Your task to perform on an android device: open app "Microsoft Excel" (install if not already installed) and go to login screen Image 0: 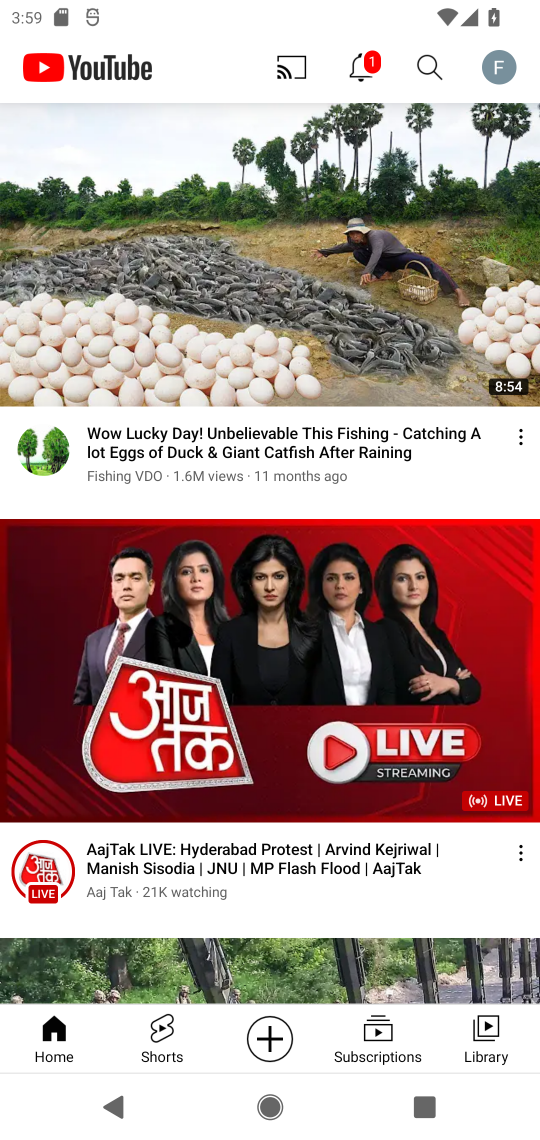
Step 0: press home button
Your task to perform on an android device: open app "Microsoft Excel" (install if not already installed) and go to login screen Image 1: 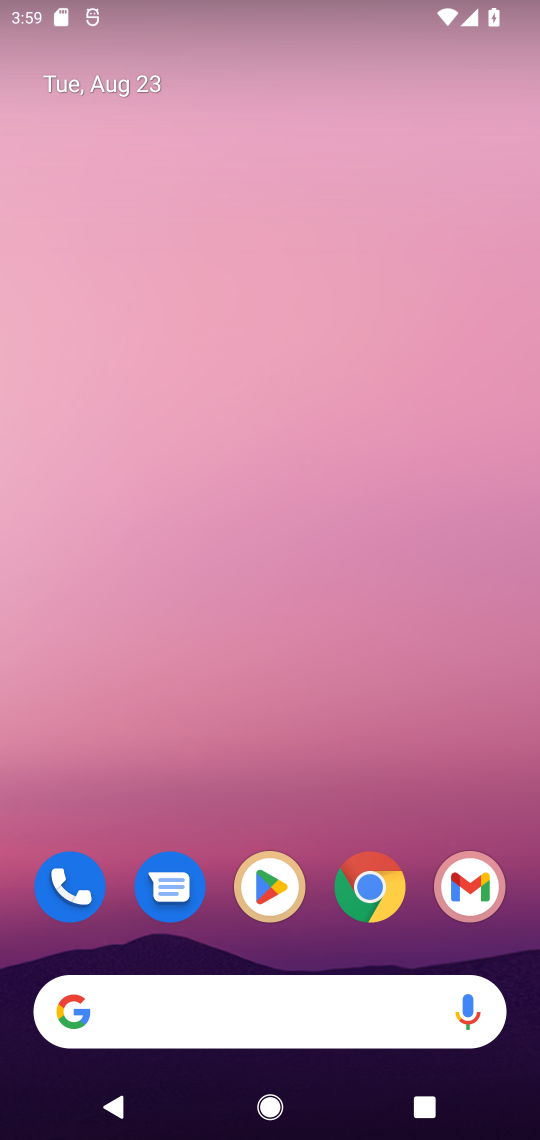
Step 1: click (268, 895)
Your task to perform on an android device: open app "Microsoft Excel" (install if not already installed) and go to login screen Image 2: 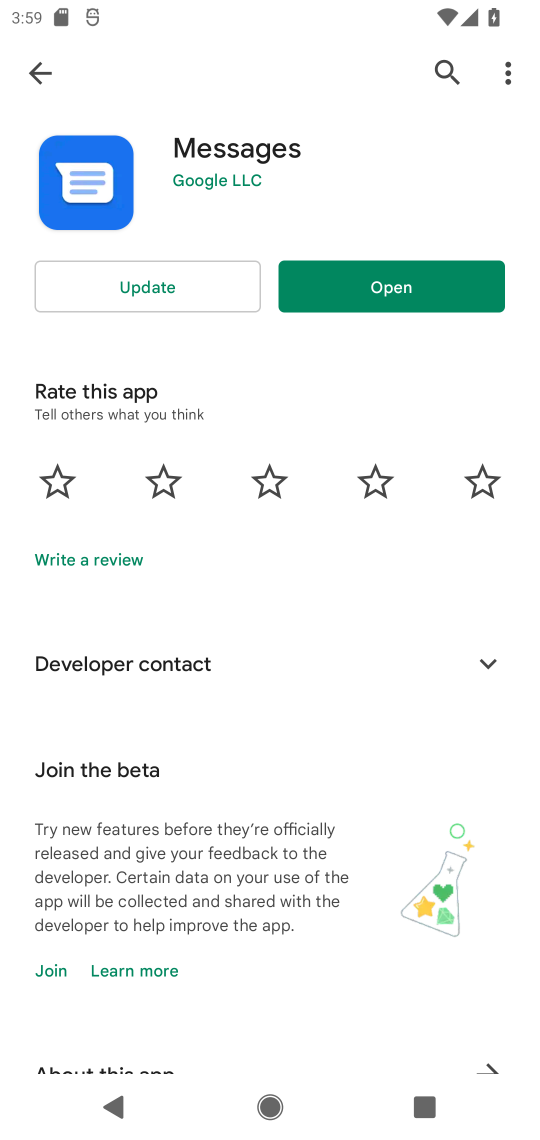
Step 2: click (32, 62)
Your task to perform on an android device: open app "Microsoft Excel" (install if not already installed) and go to login screen Image 3: 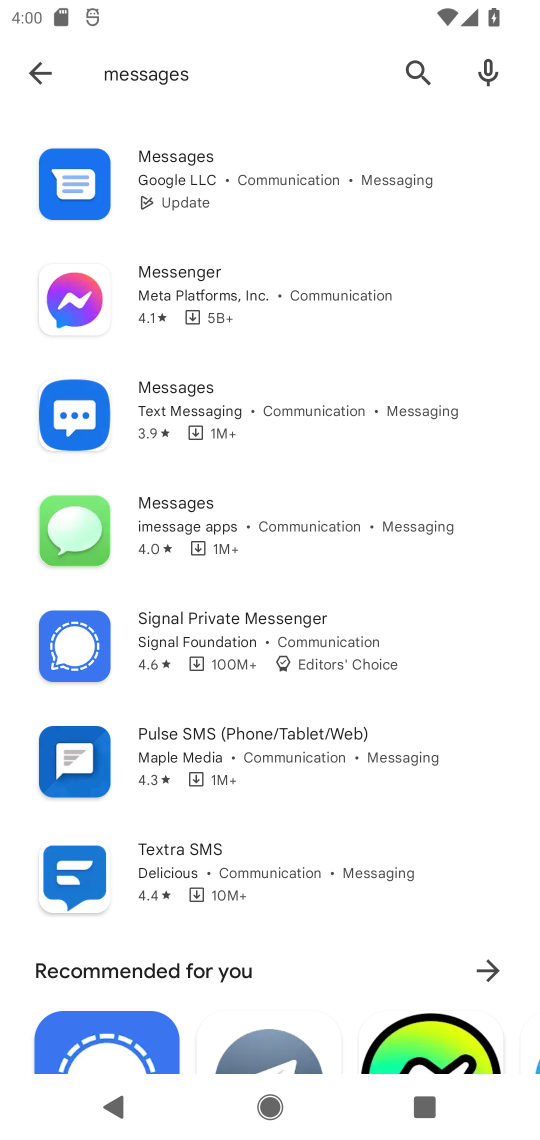
Step 3: click (40, 71)
Your task to perform on an android device: open app "Microsoft Excel" (install if not already installed) and go to login screen Image 4: 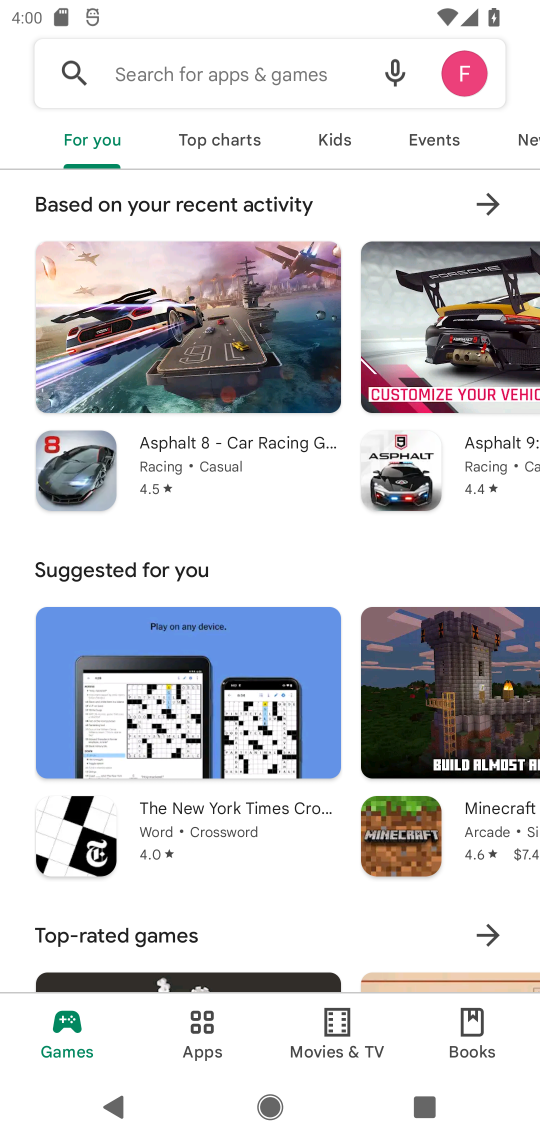
Step 4: click (248, 84)
Your task to perform on an android device: open app "Microsoft Excel" (install if not already installed) and go to login screen Image 5: 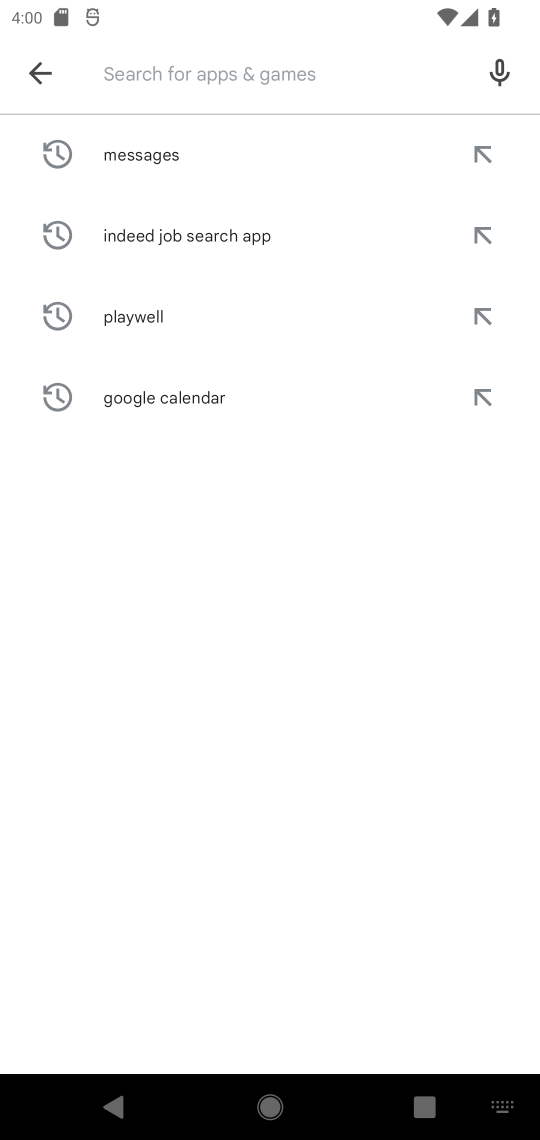
Step 5: type "Microsoft Excel"
Your task to perform on an android device: open app "Microsoft Excel" (install if not already installed) and go to login screen Image 6: 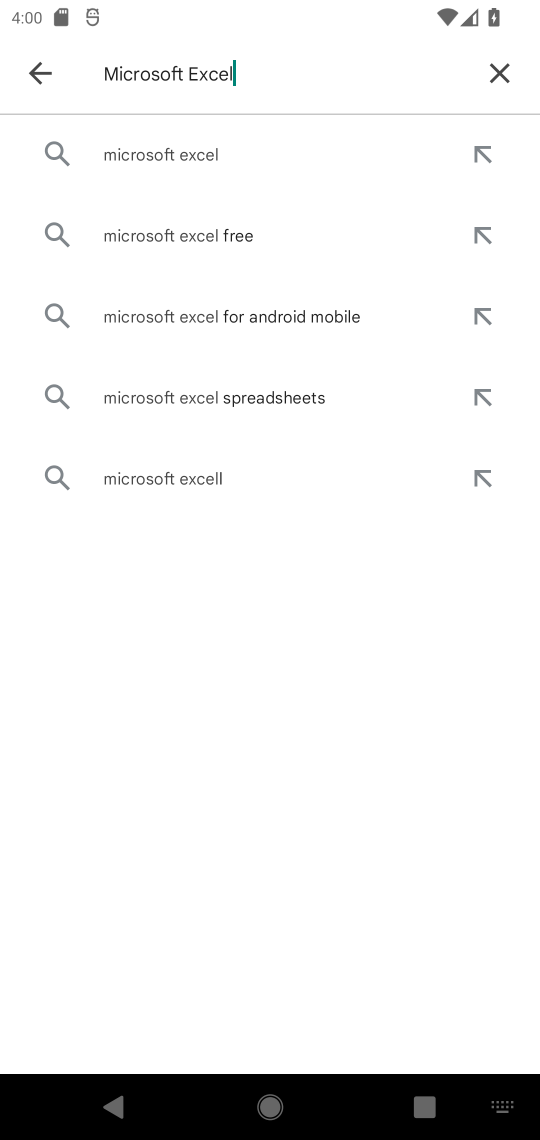
Step 6: click (151, 135)
Your task to perform on an android device: open app "Microsoft Excel" (install if not already installed) and go to login screen Image 7: 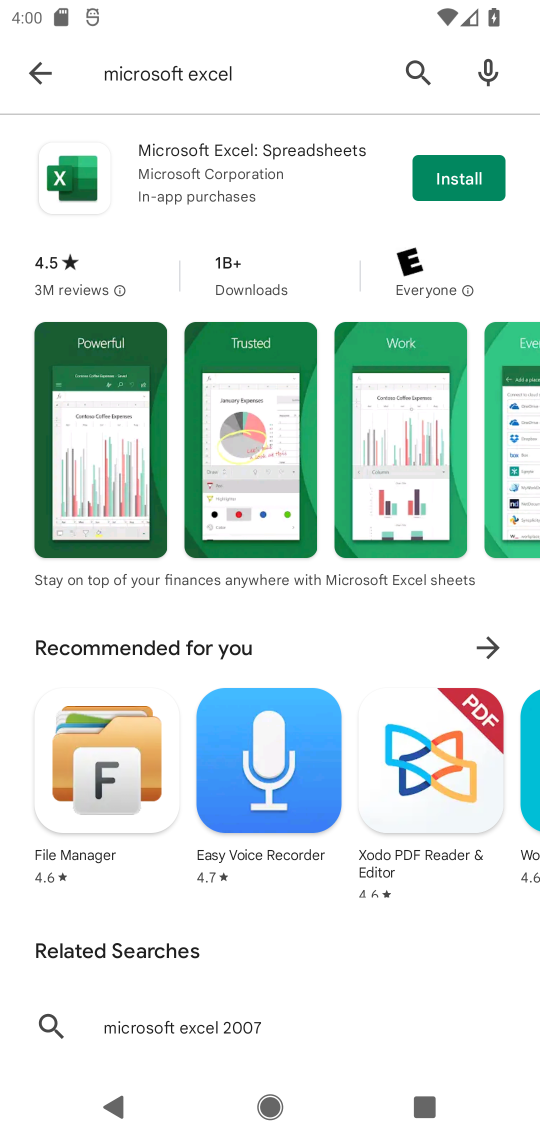
Step 7: click (432, 193)
Your task to perform on an android device: open app "Microsoft Excel" (install if not already installed) and go to login screen Image 8: 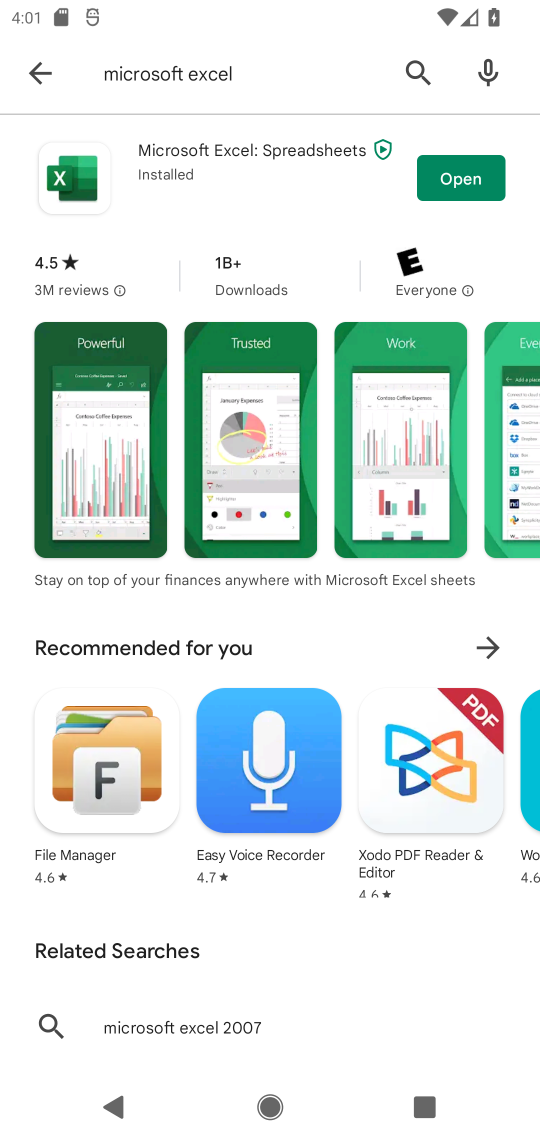
Step 8: click (432, 193)
Your task to perform on an android device: open app "Microsoft Excel" (install if not already installed) and go to login screen Image 9: 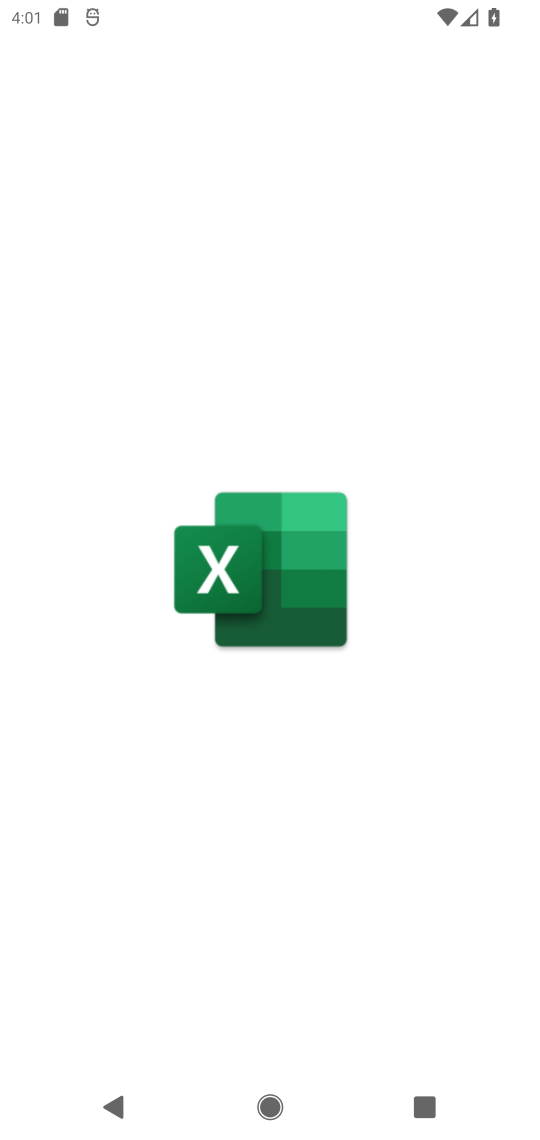
Step 9: task complete